Your task to perform on an android device: What is the recent news? Image 0: 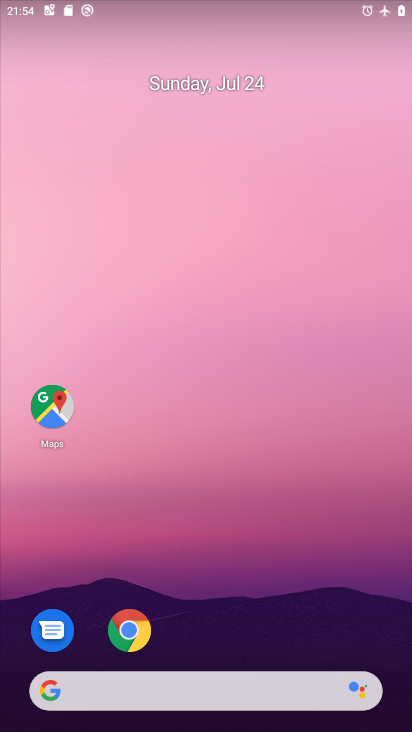
Step 0: drag from (230, 656) to (179, 8)
Your task to perform on an android device: What is the recent news? Image 1: 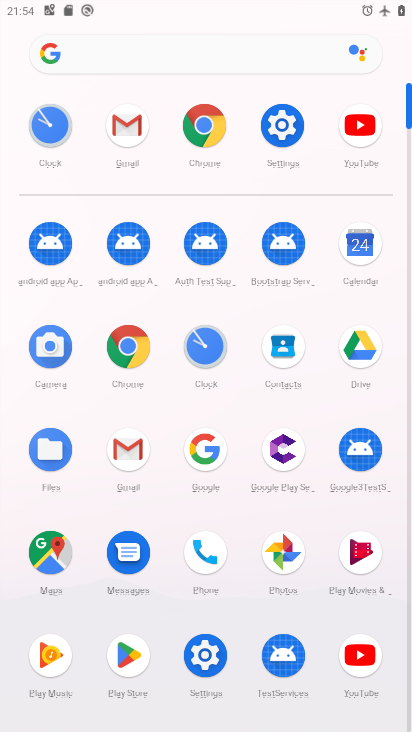
Step 1: click (199, 119)
Your task to perform on an android device: What is the recent news? Image 2: 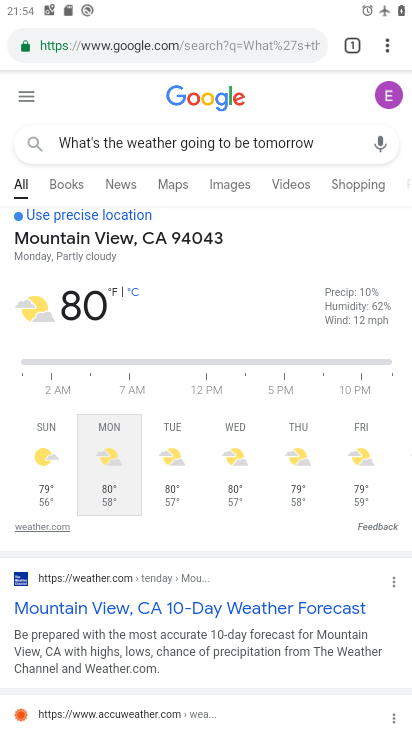
Step 2: click (394, 36)
Your task to perform on an android device: What is the recent news? Image 3: 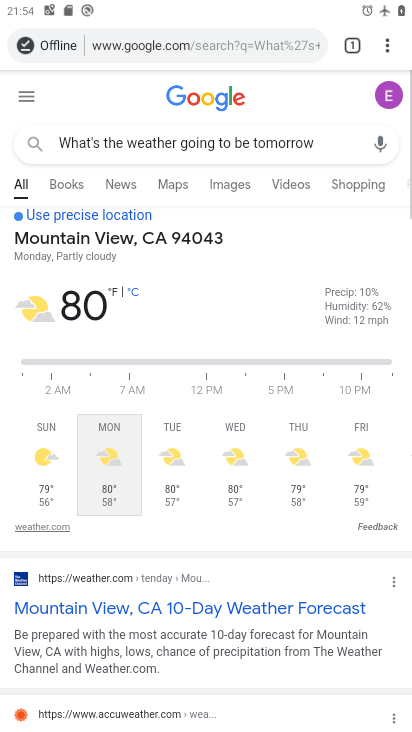
Step 3: click (384, 40)
Your task to perform on an android device: What is the recent news? Image 4: 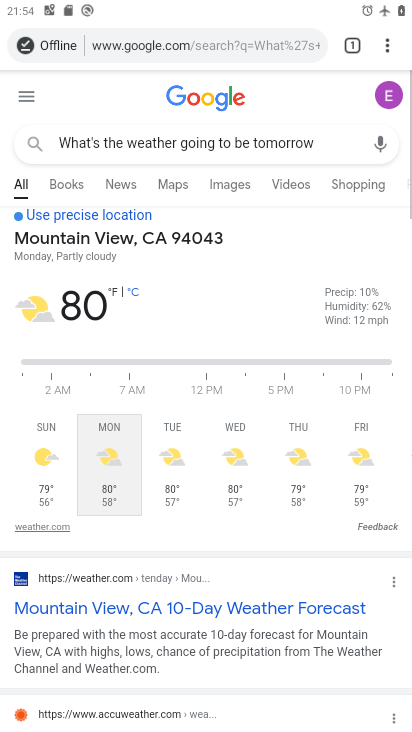
Step 4: click (384, 40)
Your task to perform on an android device: What is the recent news? Image 5: 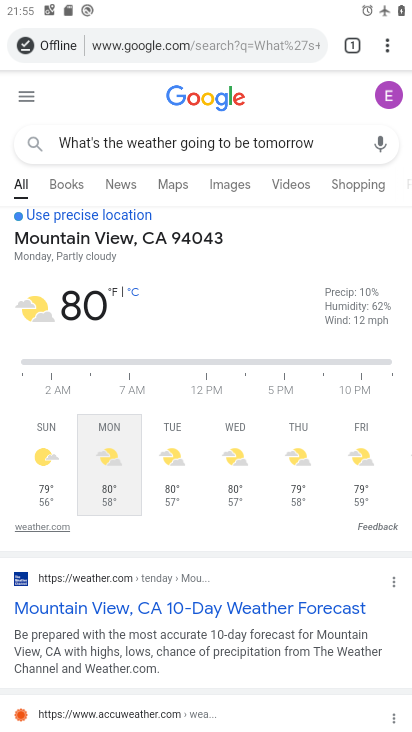
Step 5: click (391, 42)
Your task to perform on an android device: What is the recent news? Image 6: 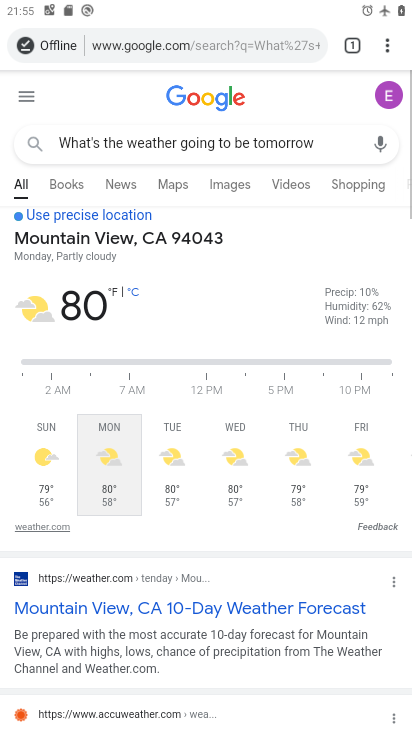
Step 6: click (391, 42)
Your task to perform on an android device: What is the recent news? Image 7: 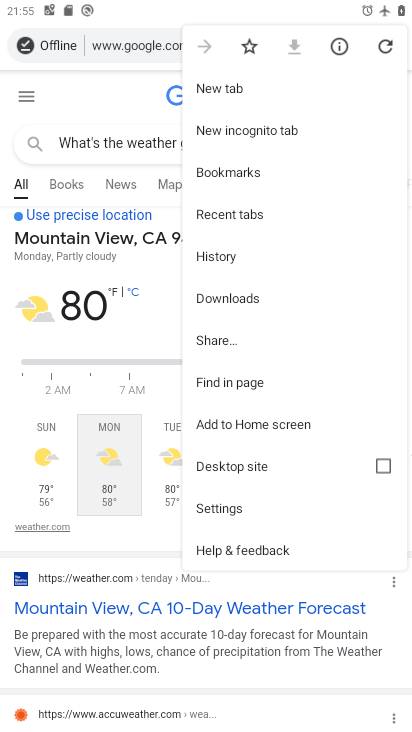
Step 7: click (211, 92)
Your task to perform on an android device: What is the recent news? Image 8: 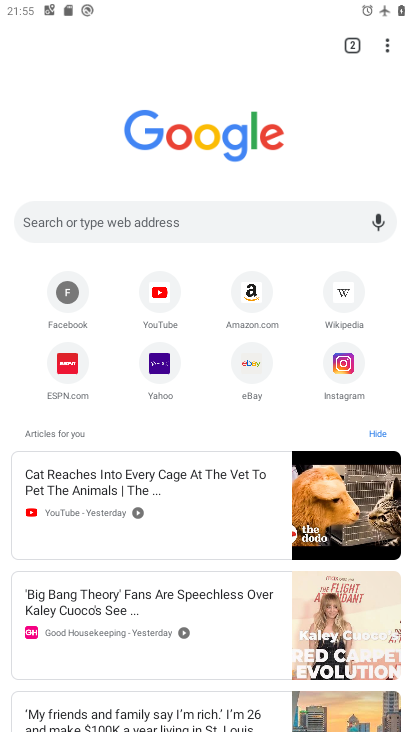
Step 8: click (244, 189)
Your task to perform on an android device: What is the recent news? Image 9: 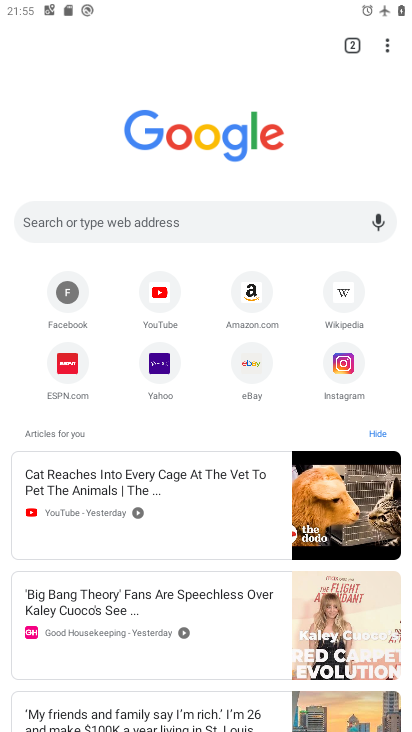
Step 9: click (234, 203)
Your task to perform on an android device: What is the recent news? Image 10: 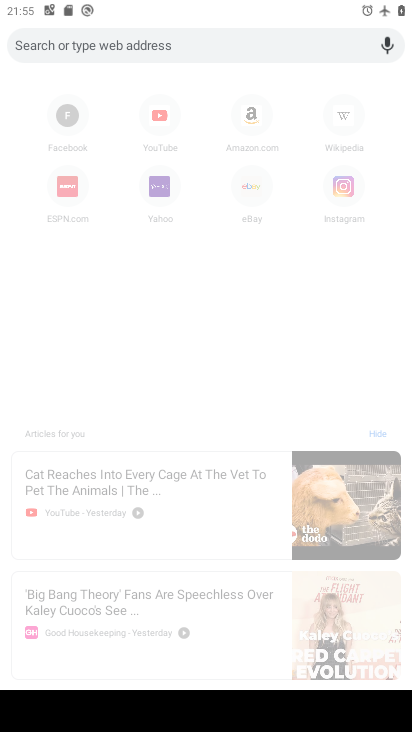
Step 10: type "What is the recent news "
Your task to perform on an android device: What is the recent news? Image 11: 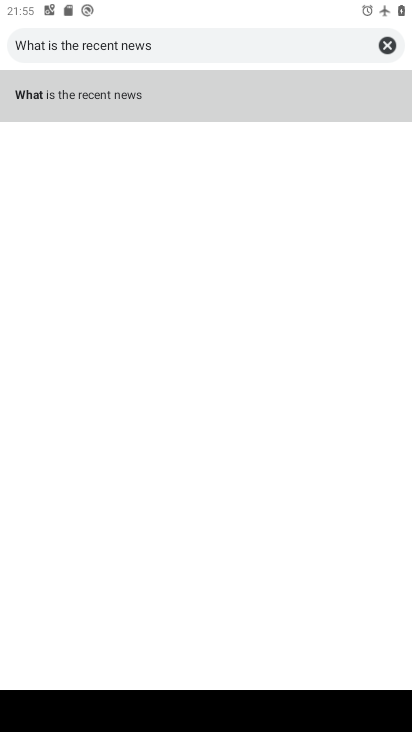
Step 11: click (213, 89)
Your task to perform on an android device: What is the recent news? Image 12: 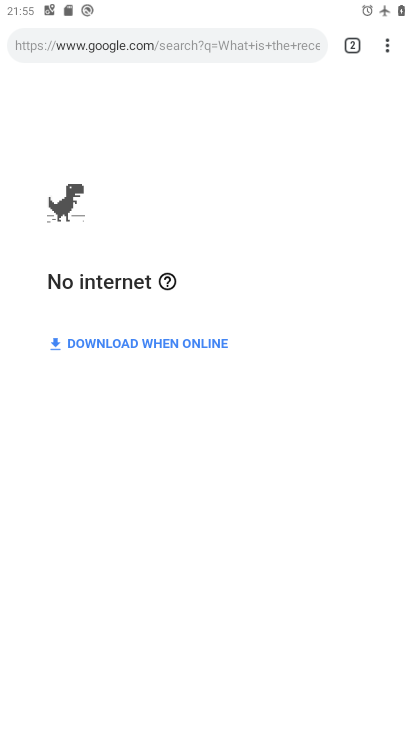
Step 12: task complete